Your task to perform on an android device: change alarm snooze length Image 0: 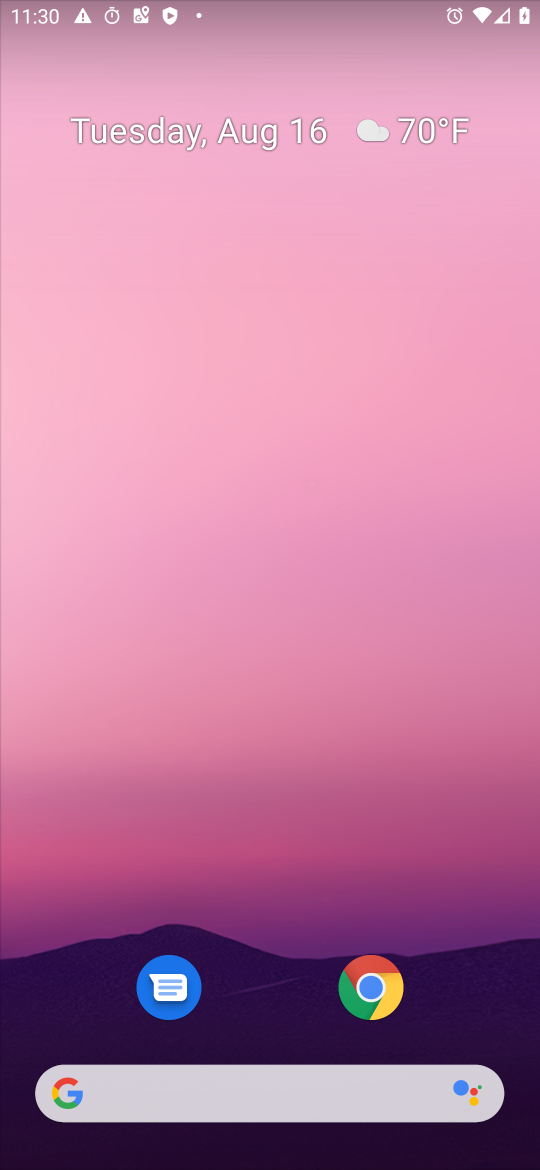
Step 0: drag from (39, 1131) to (435, 297)
Your task to perform on an android device: change alarm snooze length Image 1: 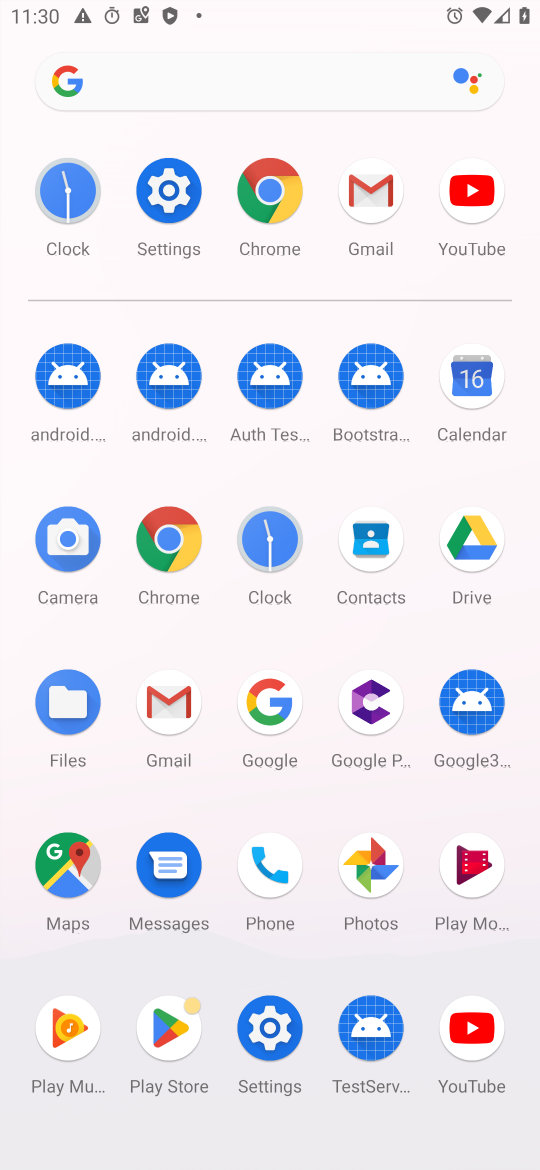
Step 1: click (83, 216)
Your task to perform on an android device: change alarm snooze length Image 2: 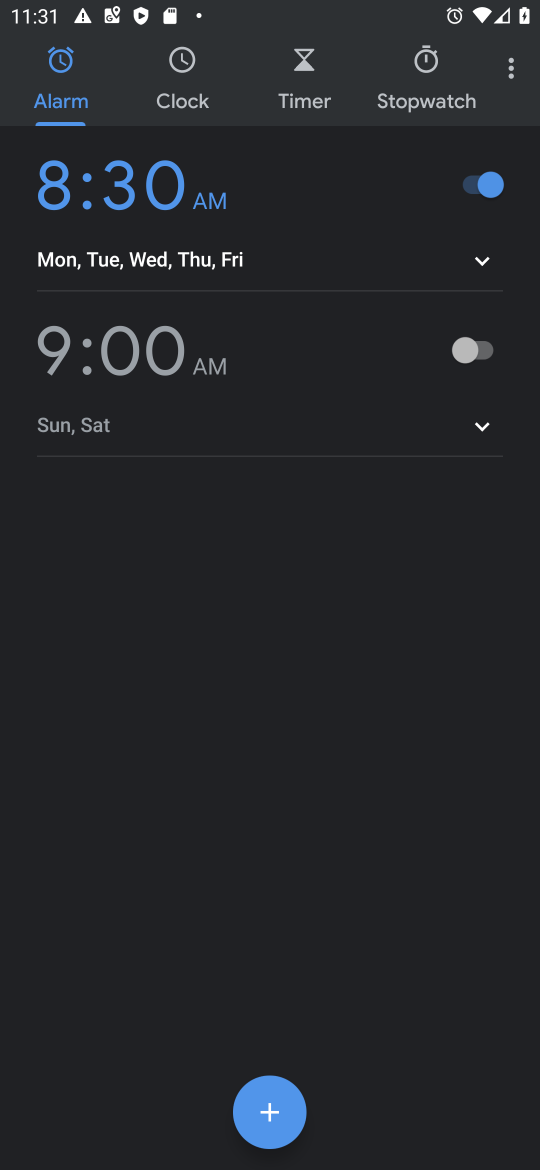
Step 2: click (519, 75)
Your task to perform on an android device: change alarm snooze length Image 3: 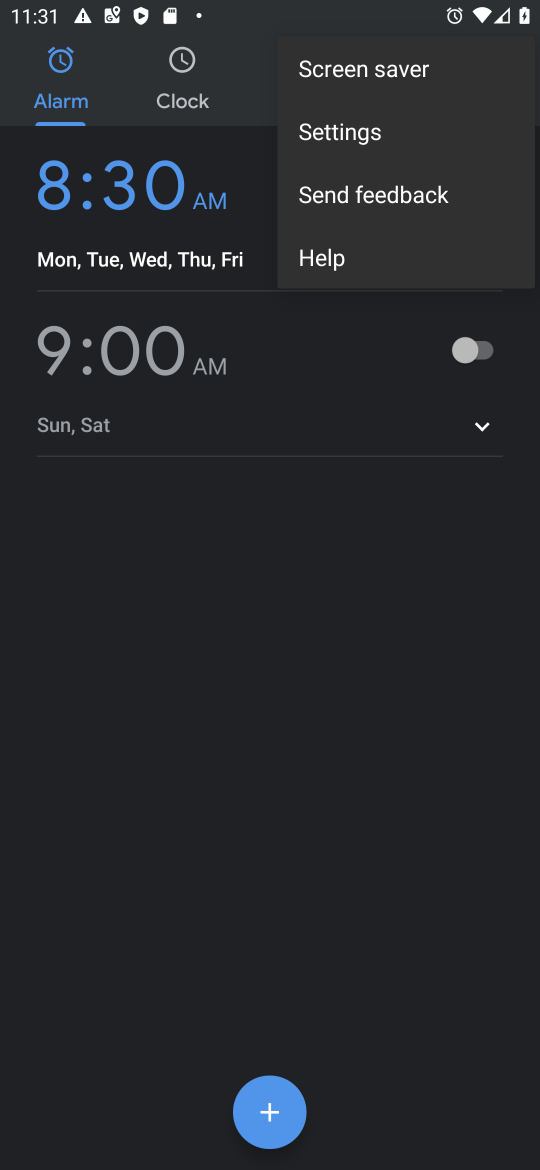
Step 3: click (370, 141)
Your task to perform on an android device: change alarm snooze length Image 4: 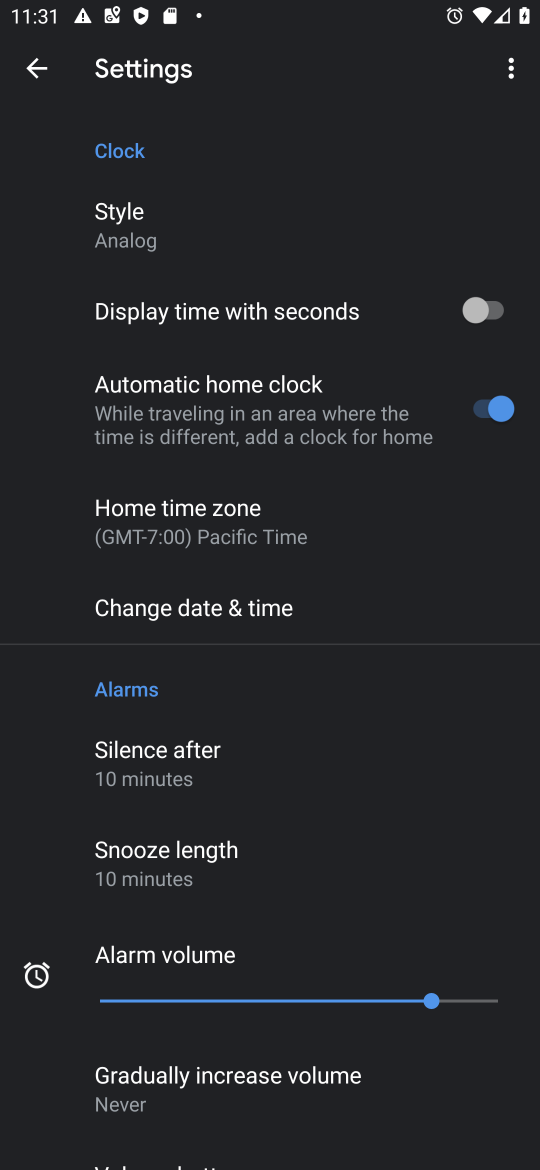
Step 4: click (139, 767)
Your task to perform on an android device: change alarm snooze length Image 5: 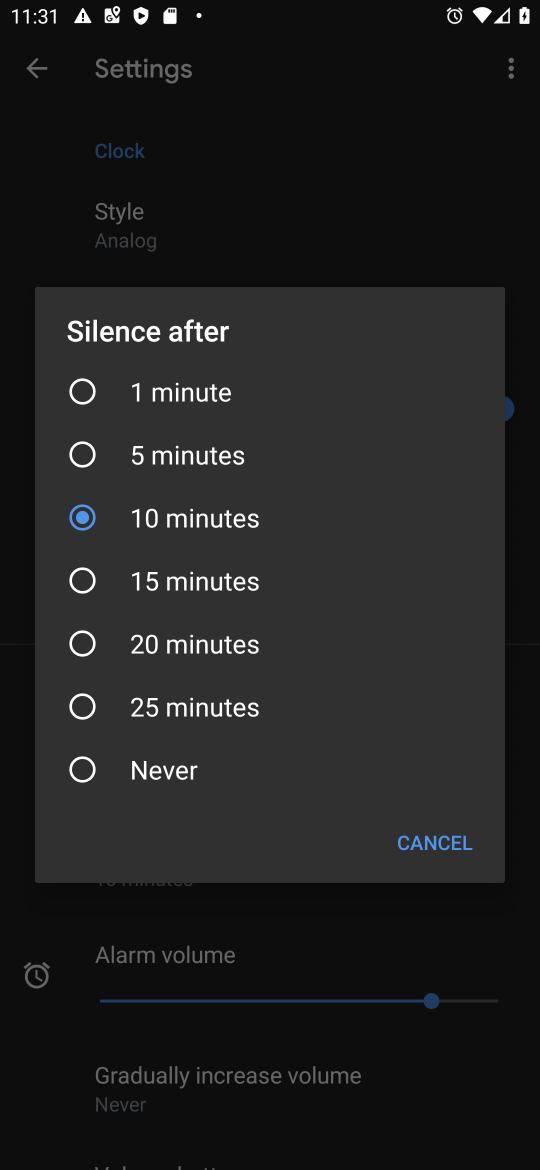
Step 5: click (85, 584)
Your task to perform on an android device: change alarm snooze length Image 6: 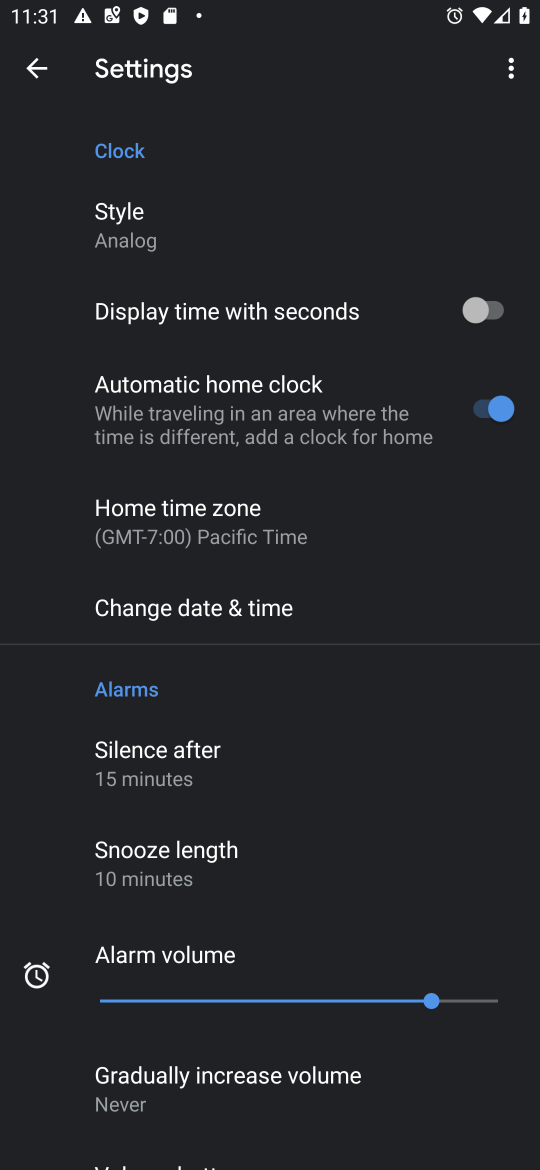
Step 6: task complete